Your task to perform on an android device: turn on the 12-hour format for clock Image 0: 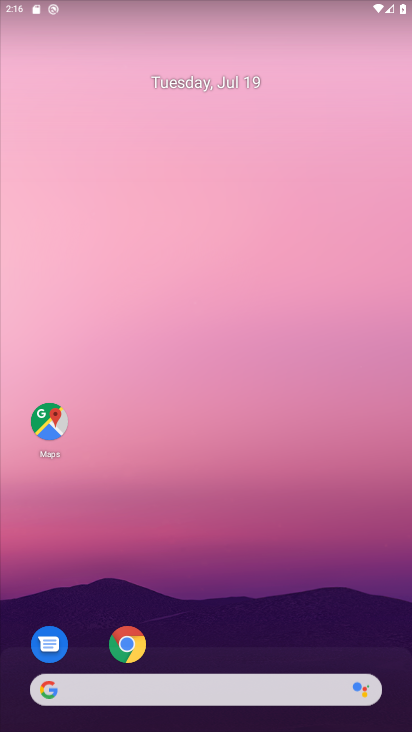
Step 0: drag from (234, 624) to (218, 102)
Your task to perform on an android device: turn on the 12-hour format for clock Image 1: 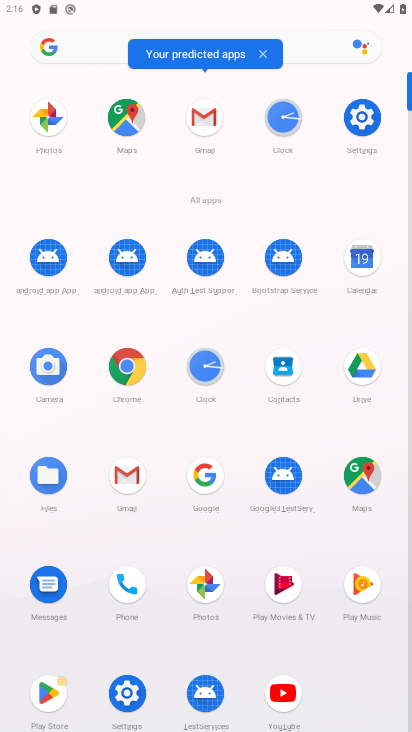
Step 1: click (287, 118)
Your task to perform on an android device: turn on the 12-hour format for clock Image 2: 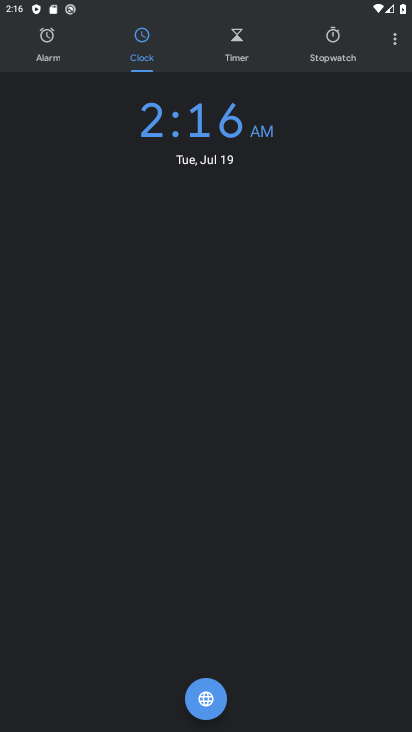
Step 2: click (387, 58)
Your task to perform on an android device: turn on the 12-hour format for clock Image 3: 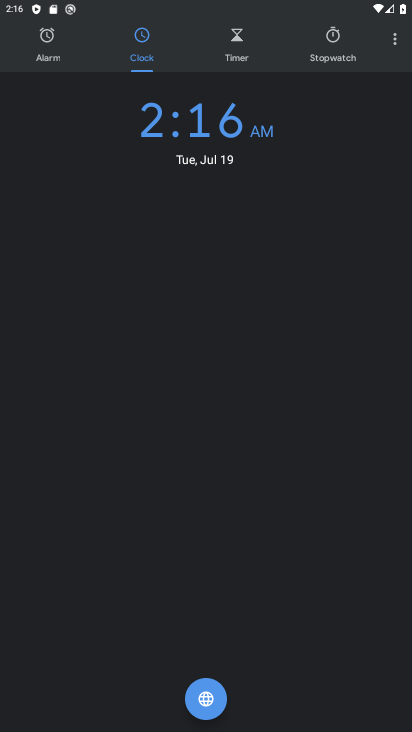
Step 3: click (387, 36)
Your task to perform on an android device: turn on the 12-hour format for clock Image 4: 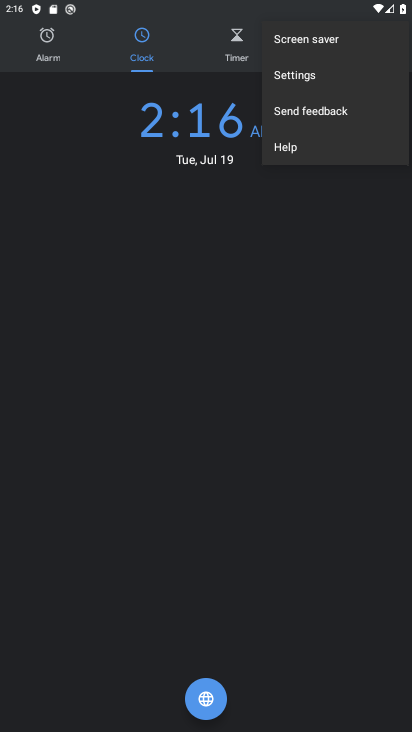
Step 4: click (298, 73)
Your task to perform on an android device: turn on the 12-hour format for clock Image 5: 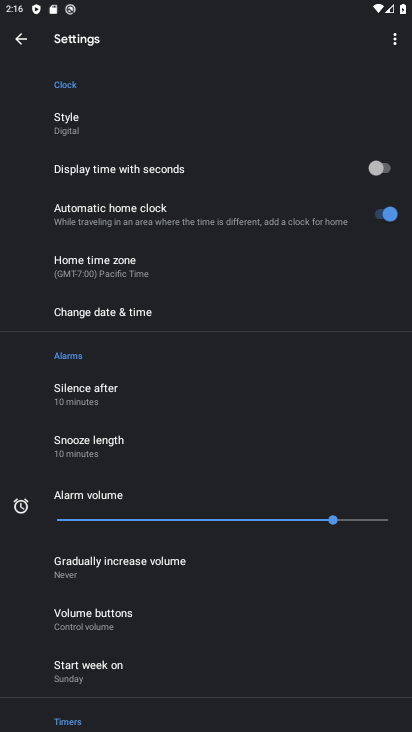
Step 5: click (144, 321)
Your task to perform on an android device: turn on the 12-hour format for clock Image 6: 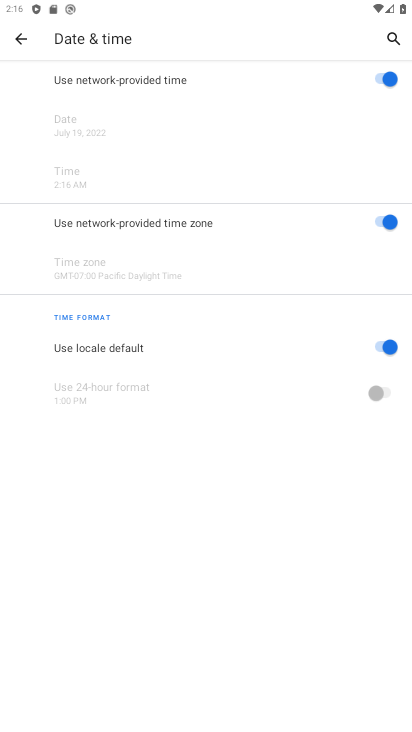
Step 6: task complete